Your task to perform on an android device: What's the weather today? Image 0: 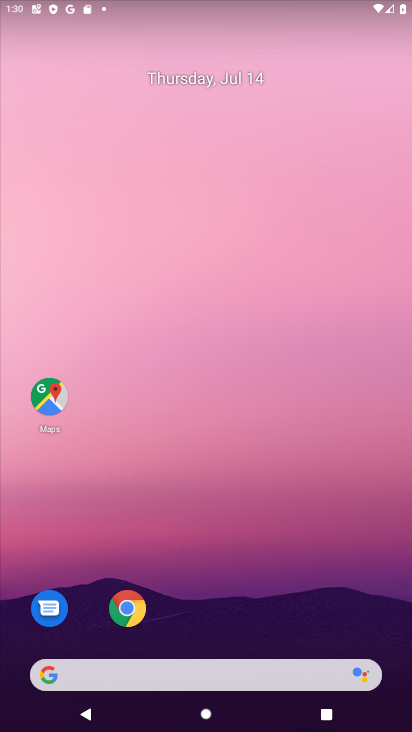
Step 0: click (293, 699)
Your task to perform on an android device: What's the weather today? Image 1: 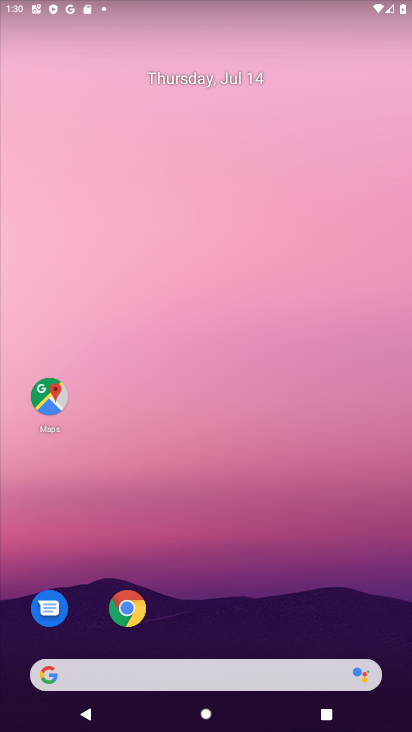
Step 1: click (271, 685)
Your task to perform on an android device: What's the weather today? Image 2: 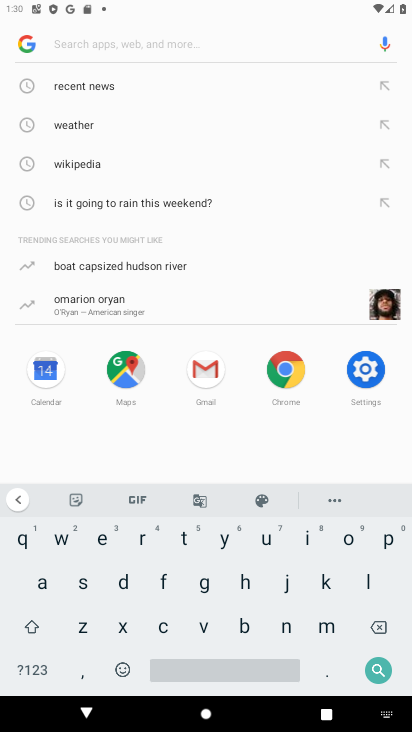
Step 2: click (60, 531)
Your task to perform on an android device: What's the weather today? Image 3: 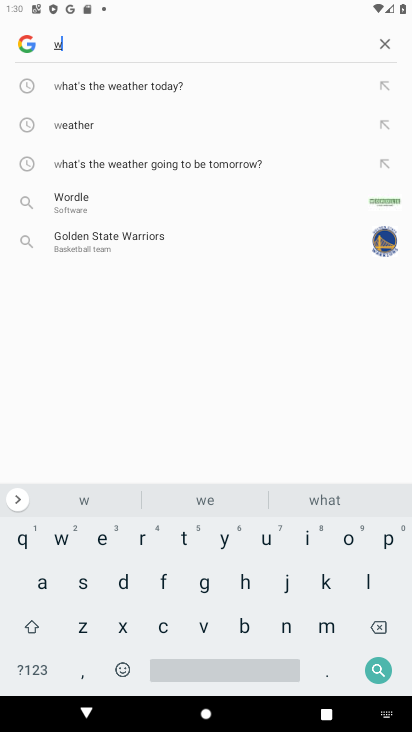
Step 3: click (85, 134)
Your task to perform on an android device: What's the weather today? Image 4: 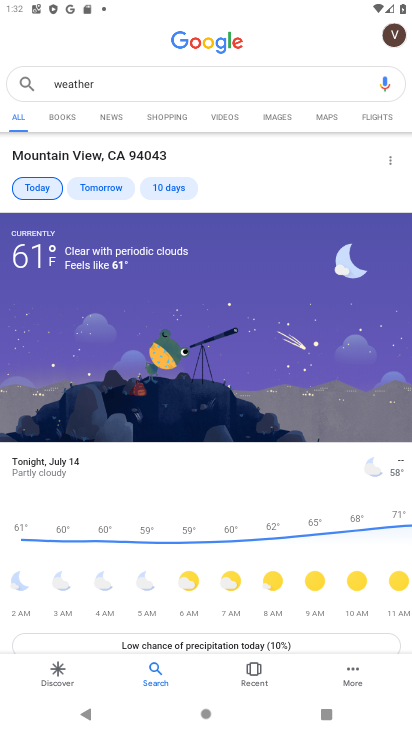
Step 4: task complete